Your task to perform on an android device: find which apps use the phone's location Image 0: 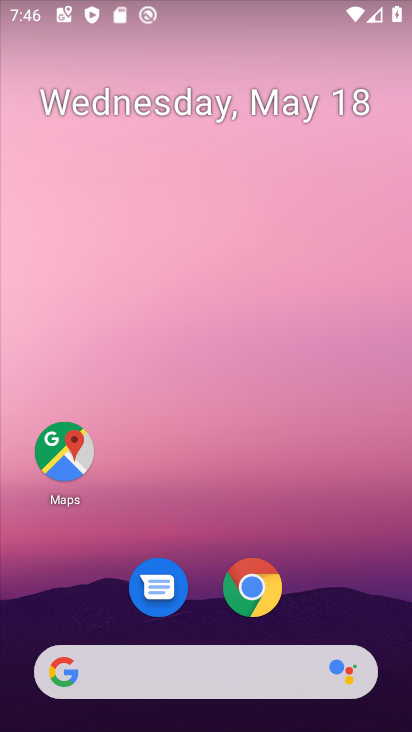
Step 0: drag from (196, 615) to (285, 118)
Your task to perform on an android device: find which apps use the phone's location Image 1: 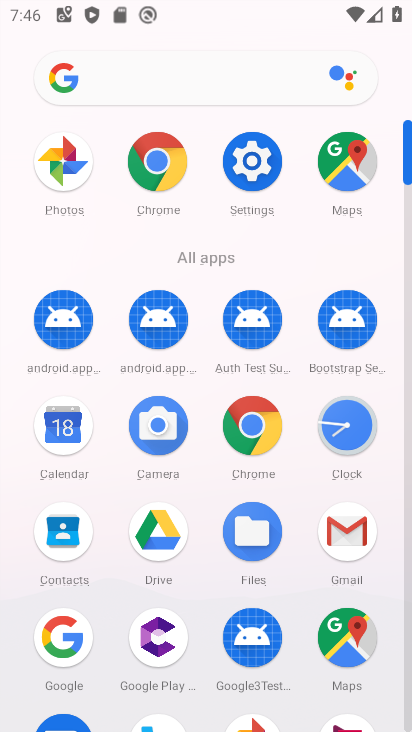
Step 1: click (250, 156)
Your task to perform on an android device: find which apps use the phone's location Image 2: 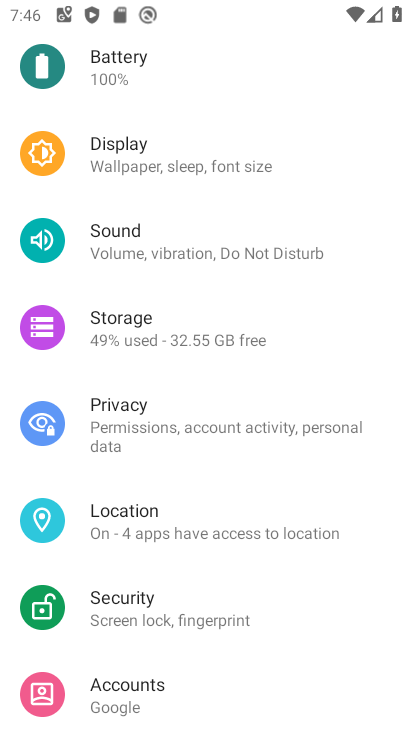
Step 2: click (131, 526)
Your task to perform on an android device: find which apps use the phone's location Image 3: 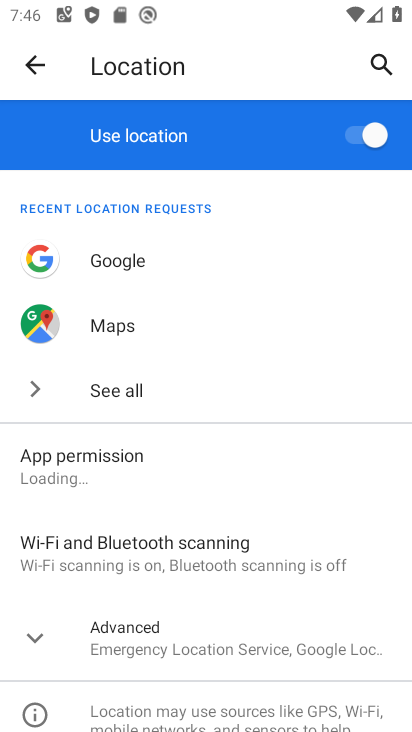
Step 3: click (122, 381)
Your task to perform on an android device: find which apps use the phone's location Image 4: 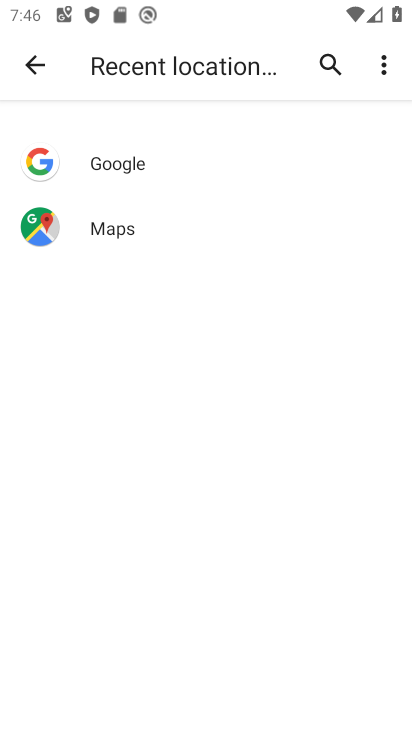
Step 4: task complete